Your task to perform on an android device: Go to Yahoo.com Image 0: 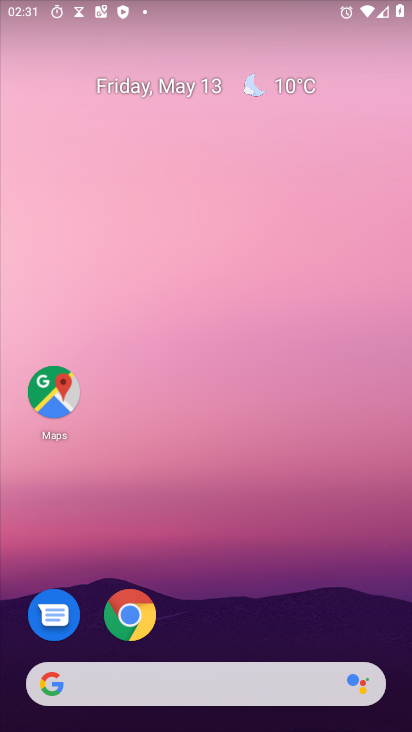
Step 0: click (141, 612)
Your task to perform on an android device: Go to Yahoo.com Image 1: 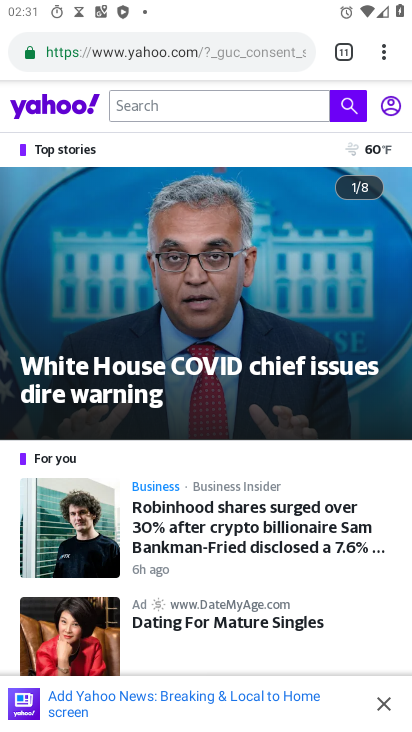
Step 1: task complete